Your task to perform on an android device: see tabs open on other devices in the chrome app Image 0: 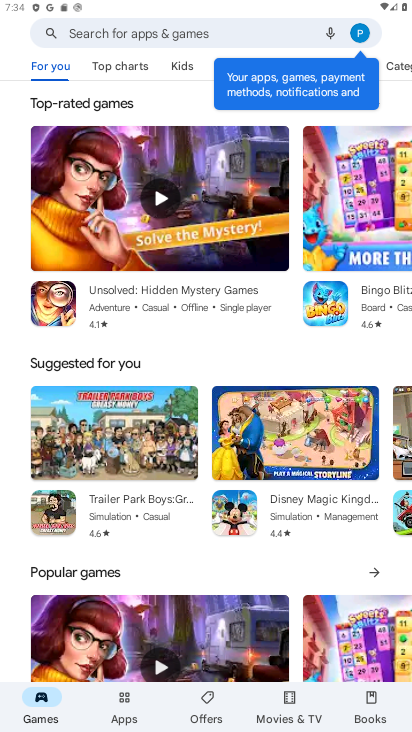
Step 0: press home button
Your task to perform on an android device: see tabs open on other devices in the chrome app Image 1: 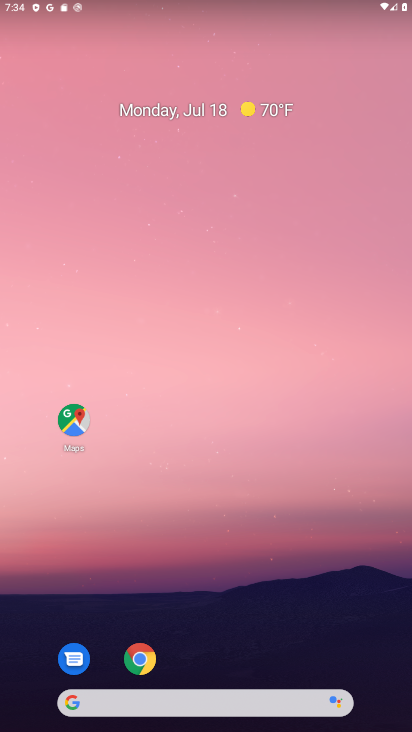
Step 1: click (141, 661)
Your task to perform on an android device: see tabs open on other devices in the chrome app Image 2: 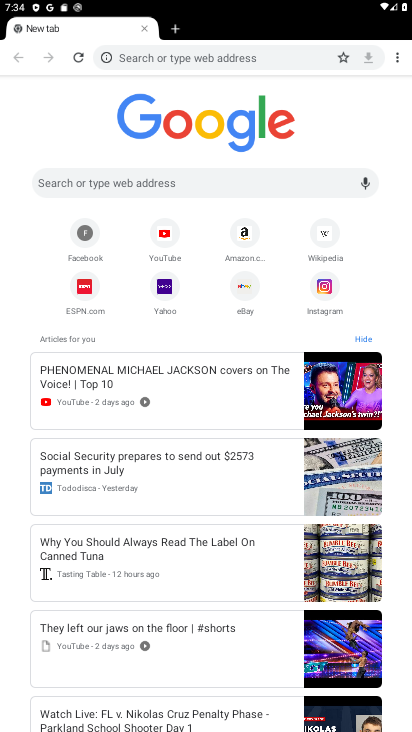
Step 2: click (397, 59)
Your task to perform on an android device: see tabs open on other devices in the chrome app Image 3: 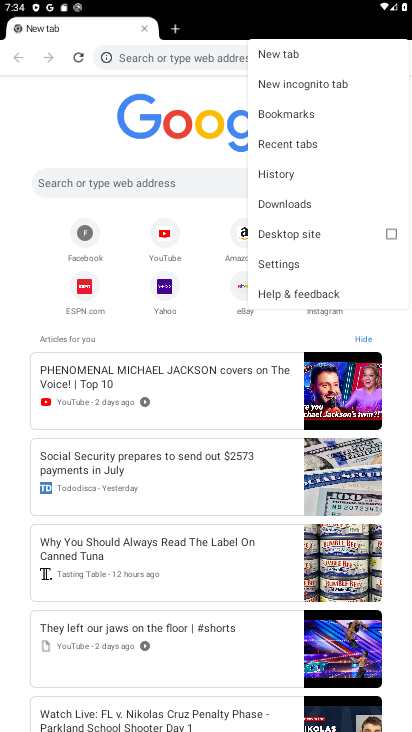
Step 3: click (310, 142)
Your task to perform on an android device: see tabs open on other devices in the chrome app Image 4: 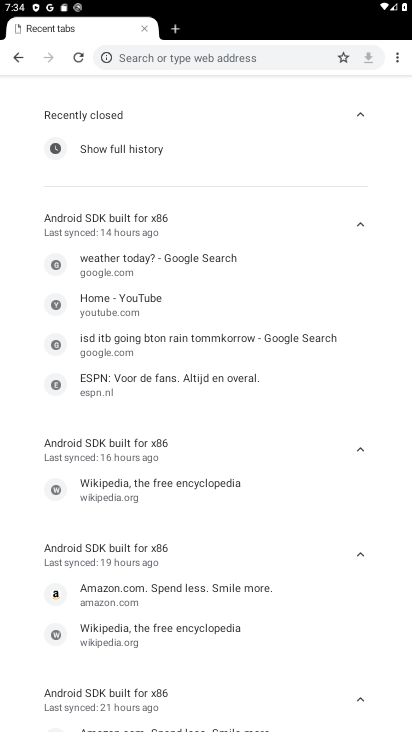
Step 4: task complete